Your task to perform on an android device: Go to display settings Image 0: 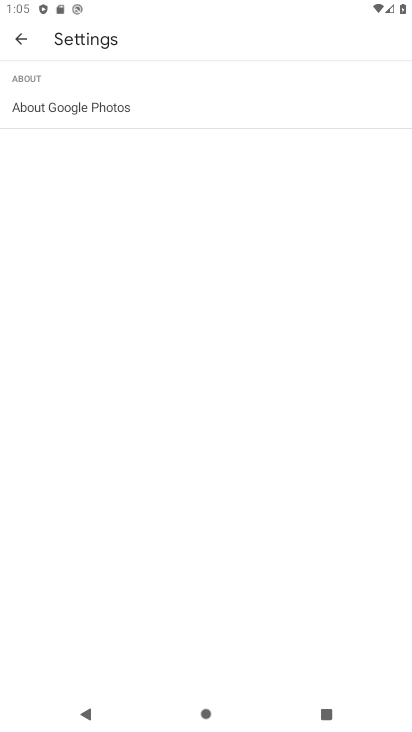
Step 0: press back button
Your task to perform on an android device: Go to display settings Image 1: 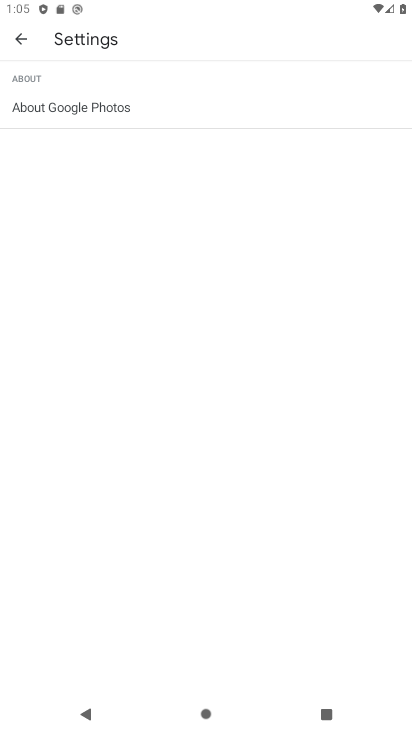
Step 1: press back button
Your task to perform on an android device: Go to display settings Image 2: 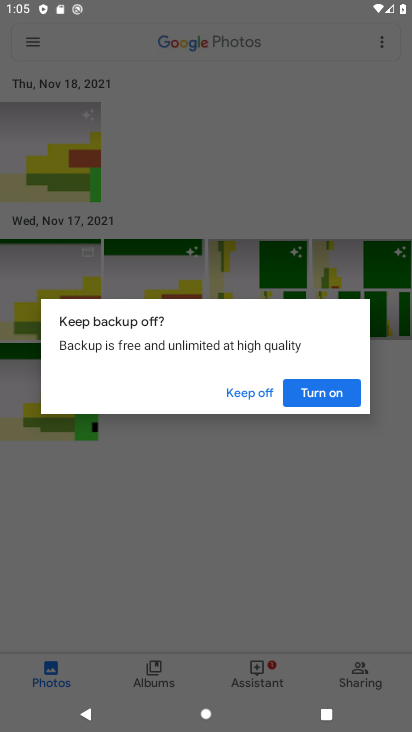
Step 2: press back button
Your task to perform on an android device: Go to display settings Image 3: 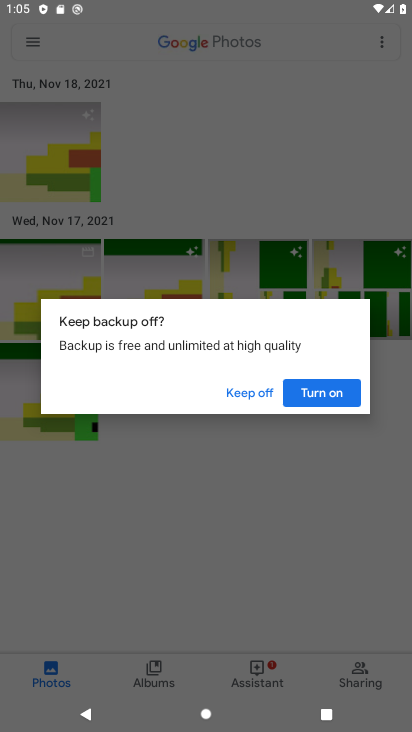
Step 3: press home button
Your task to perform on an android device: Go to display settings Image 4: 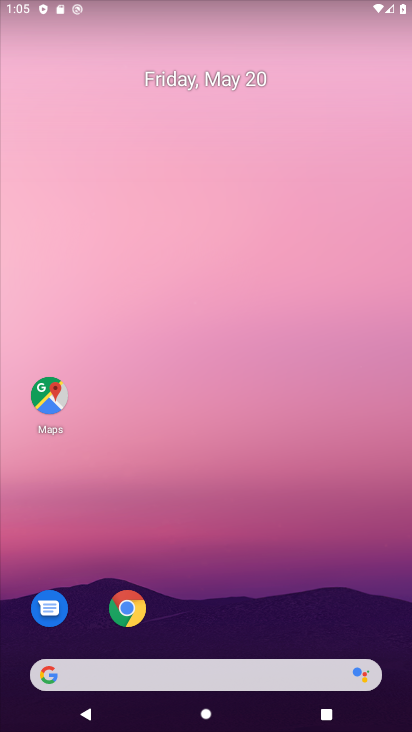
Step 4: drag from (221, 630) to (259, 123)
Your task to perform on an android device: Go to display settings Image 5: 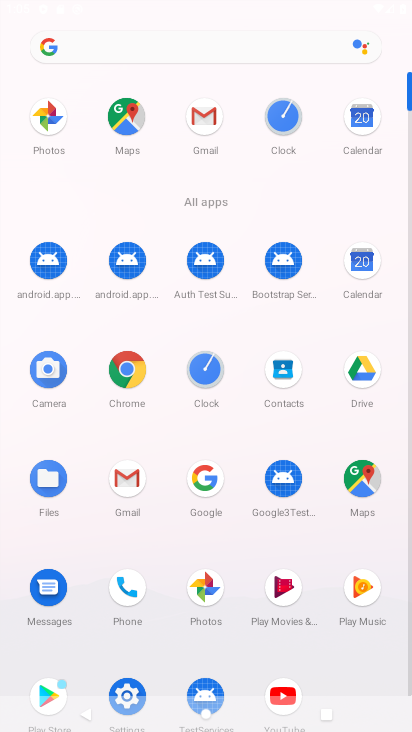
Step 5: click (126, 694)
Your task to perform on an android device: Go to display settings Image 6: 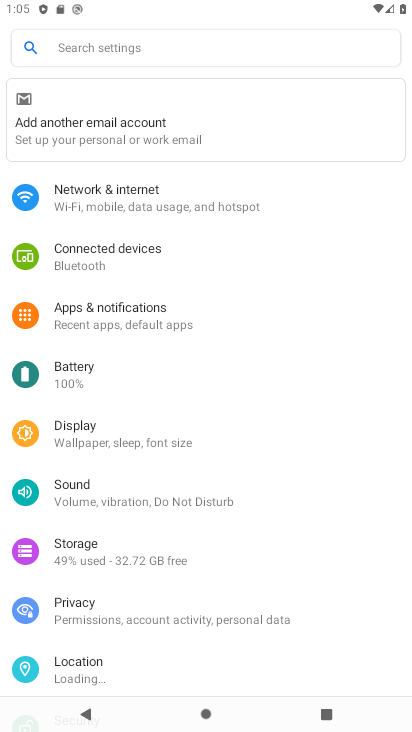
Step 6: click (97, 445)
Your task to perform on an android device: Go to display settings Image 7: 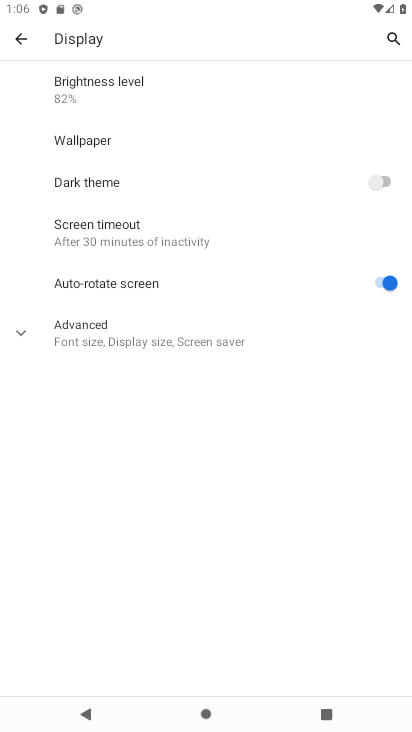
Step 7: task complete